Your task to perform on an android device: Go to network settings Image 0: 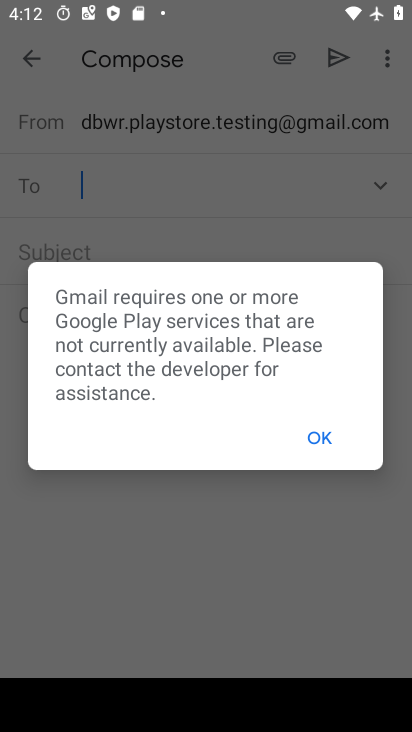
Step 0: click (319, 434)
Your task to perform on an android device: Go to network settings Image 1: 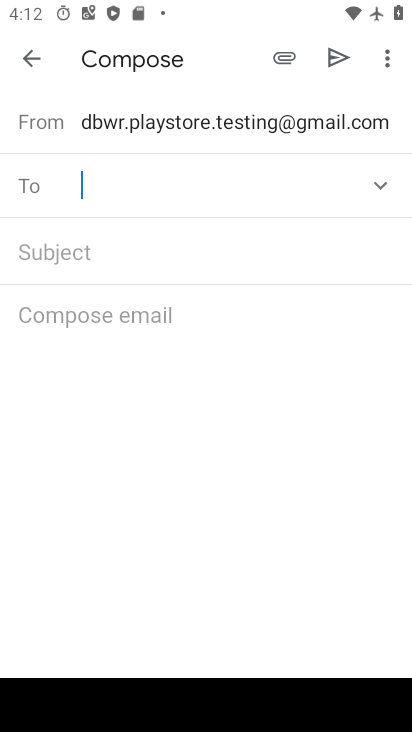
Step 1: click (23, 51)
Your task to perform on an android device: Go to network settings Image 2: 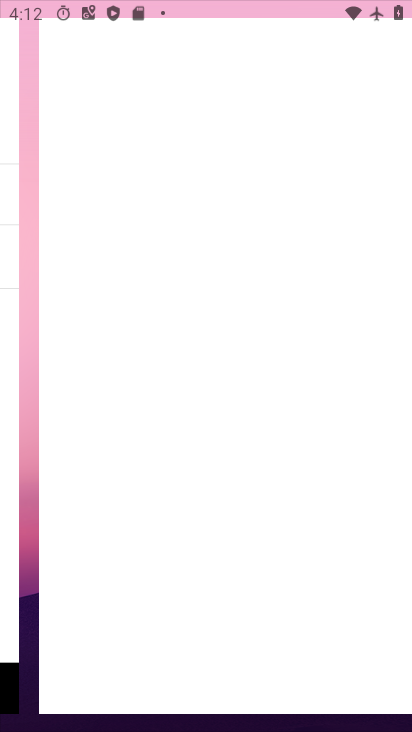
Step 2: click (20, 56)
Your task to perform on an android device: Go to network settings Image 3: 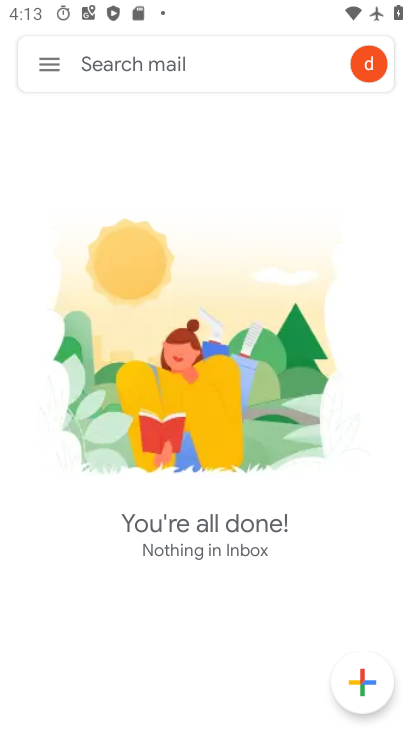
Step 3: drag from (305, 660) to (401, 553)
Your task to perform on an android device: Go to network settings Image 4: 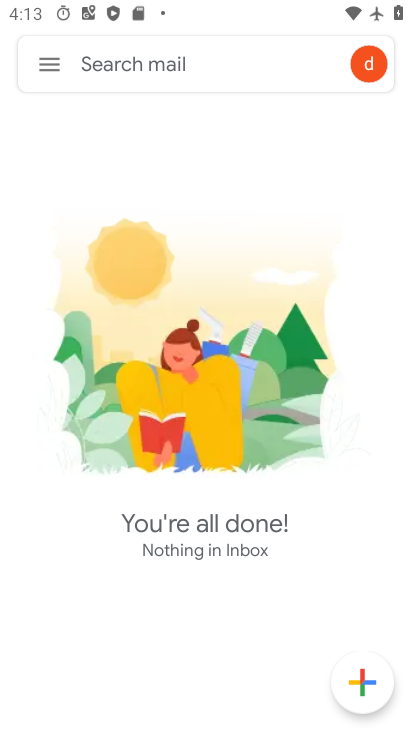
Step 4: press home button
Your task to perform on an android device: Go to network settings Image 5: 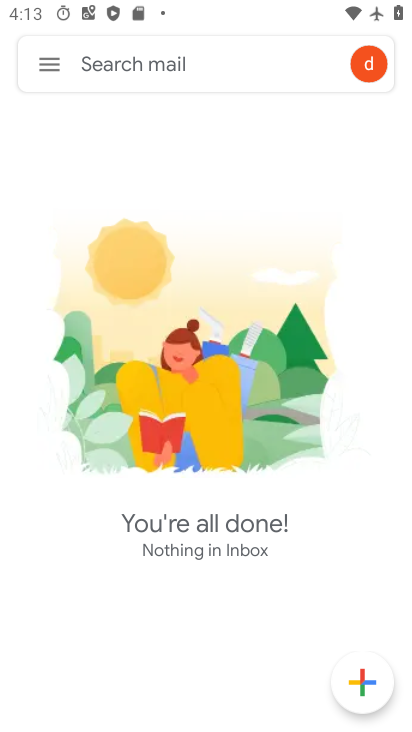
Step 5: press home button
Your task to perform on an android device: Go to network settings Image 6: 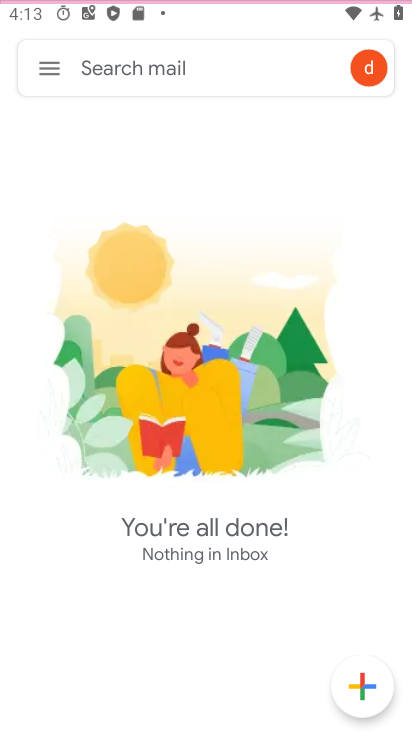
Step 6: click (343, 265)
Your task to perform on an android device: Go to network settings Image 7: 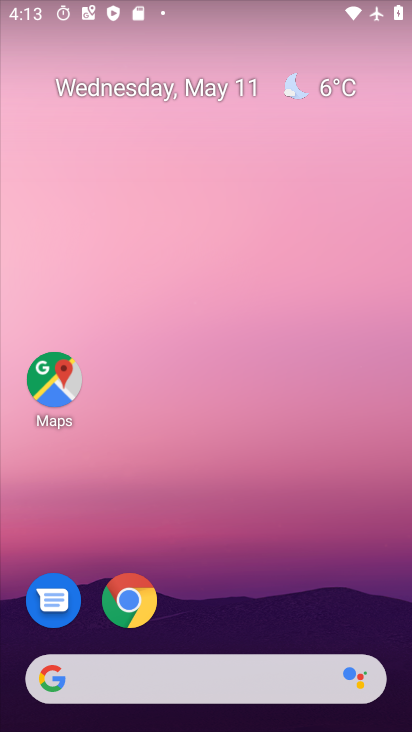
Step 7: drag from (261, 628) to (64, 54)
Your task to perform on an android device: Go to network settings Image 8: 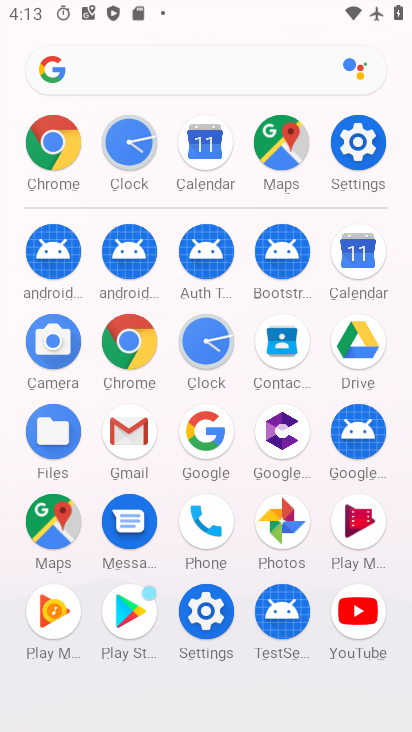
Step 8: click (365, 146)
Your task to perform on an android device: Go to network settings Image 9: 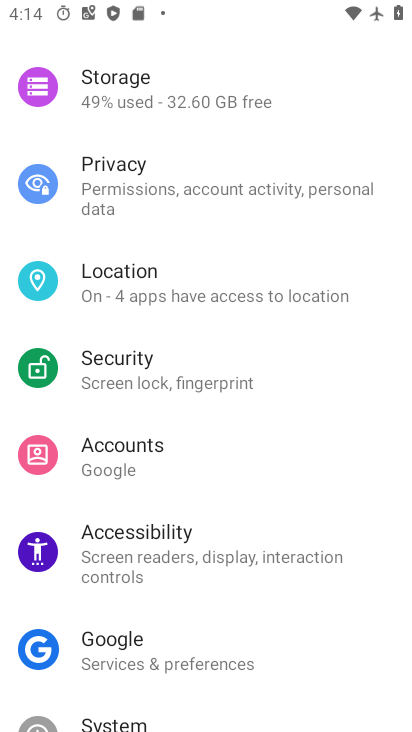
Step 9: drag from (176, 144) to (257, 629)
Your task to perform on an android device: Go to network settings Image 10: 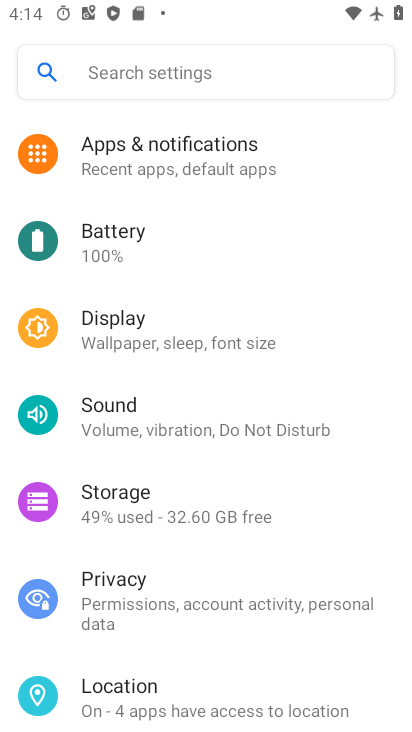
Step 10: drag from (149, 279) to (269, 717)
Your task to perform on an android device: Go to network settings Image 11: 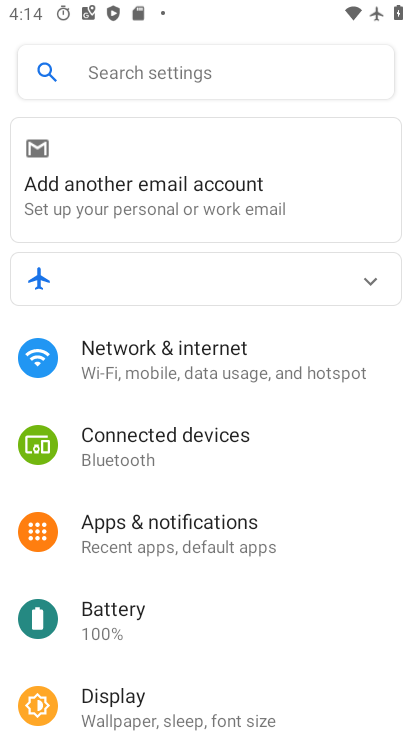
Step 11: drag from (143, 185) to (160, 441)
Your task to perform on an android device: Go to network settings Image 12: 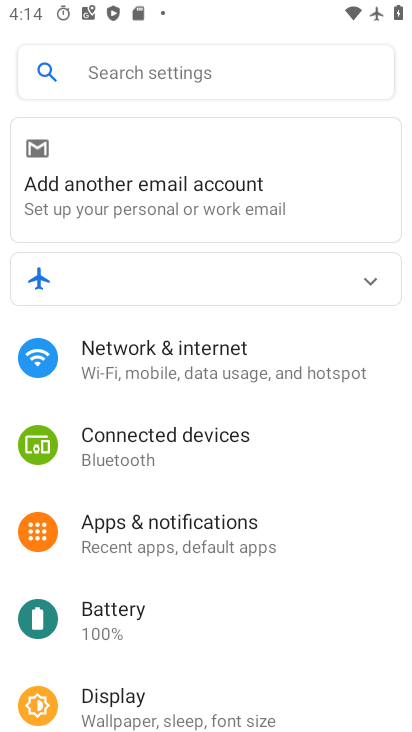
Step 12: click (217, 361)
Your task to perform on an android device: Go to network settings Image 13: 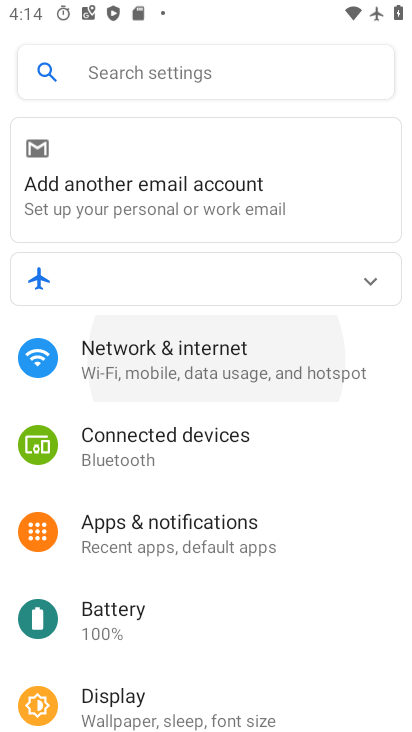
Step 13: click (217, 361)
Your task to perform on an android device: Go to network settings Image 14: 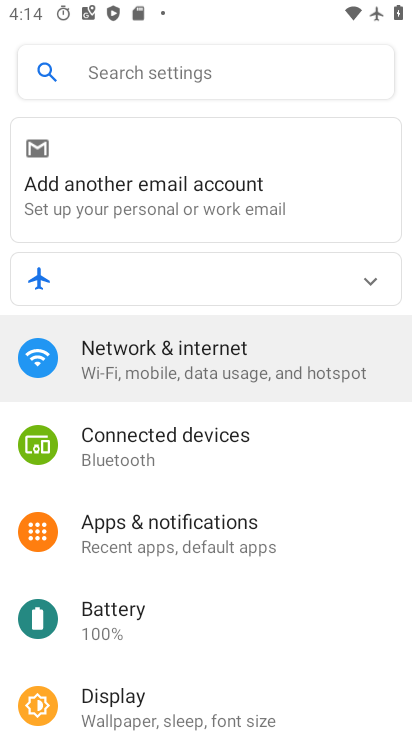
Step 14: click (217, 361)
Your task to perform on an android device: Go to network settings Image 15: 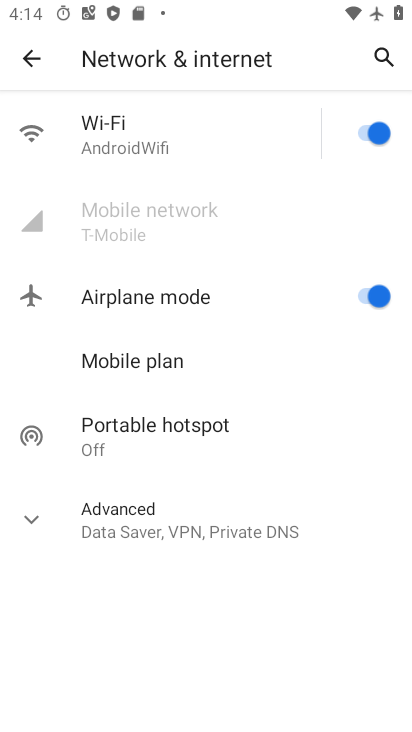
Step 15: task complete